Your task to perform on an android device: install app "Truecaller" Image 0: 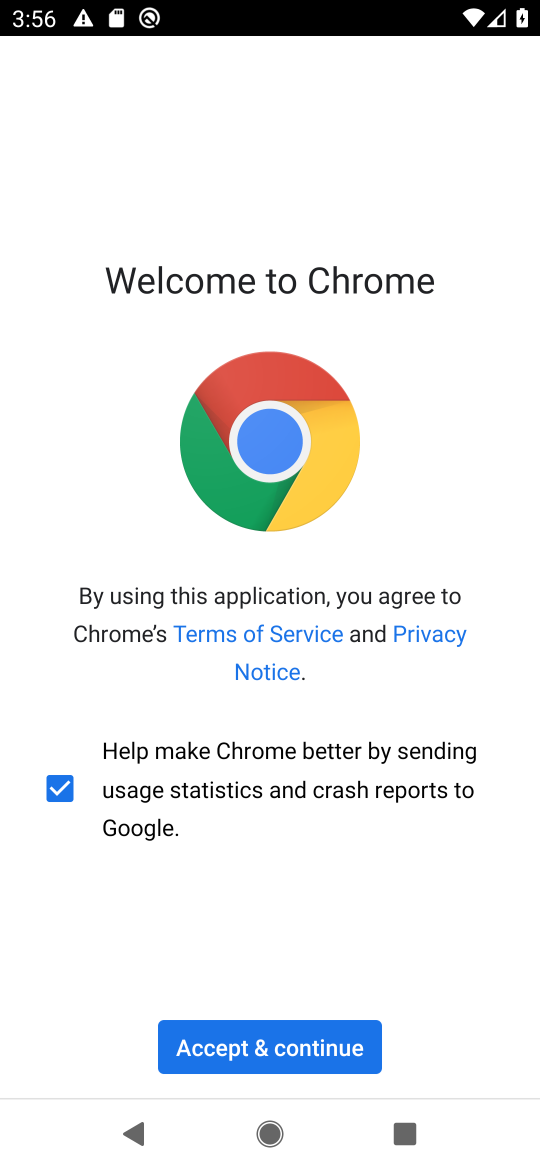
Step 0: press home button
Your task to perform on an android device: install app "Truecaller" Image 1: 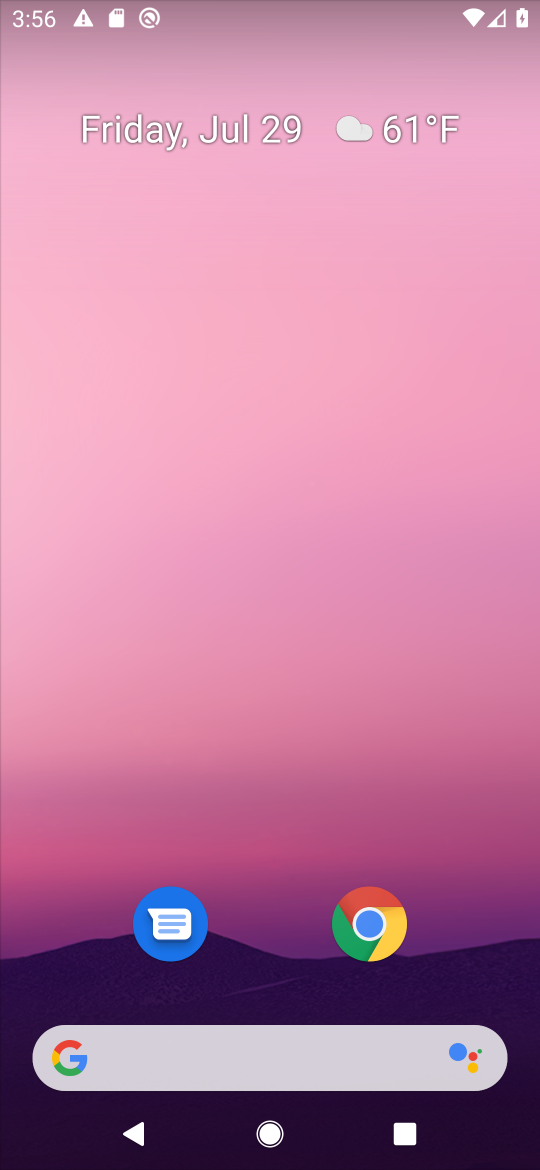
Step 1: drag from (306, 810) to (402, 56)
Your task to perform on an android device: install app "Truecaller" Image 2: 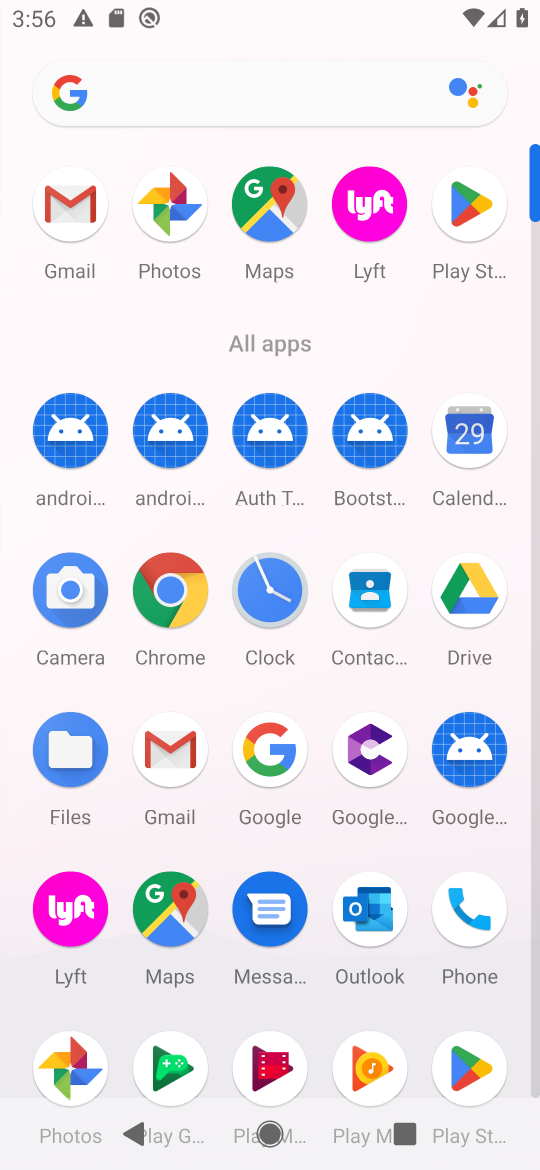
Step 2: click (463, 214)
Your task to perform on an android device: install app "Truecaller" Image 3: 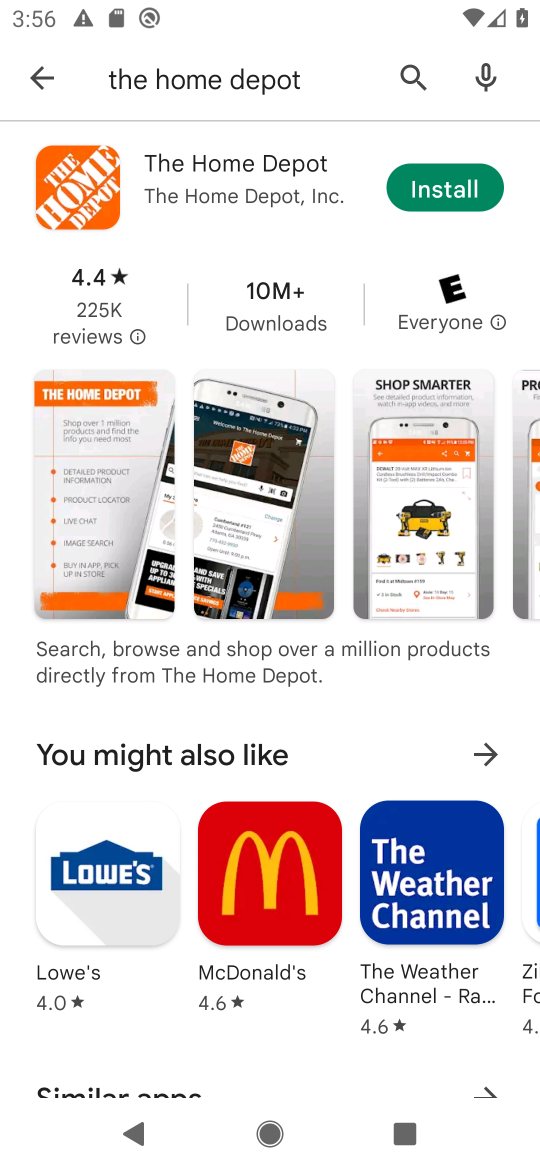
Step 3: click (409, 76)
Your task to perform on an android device: install app "Truecaller" Image 4: 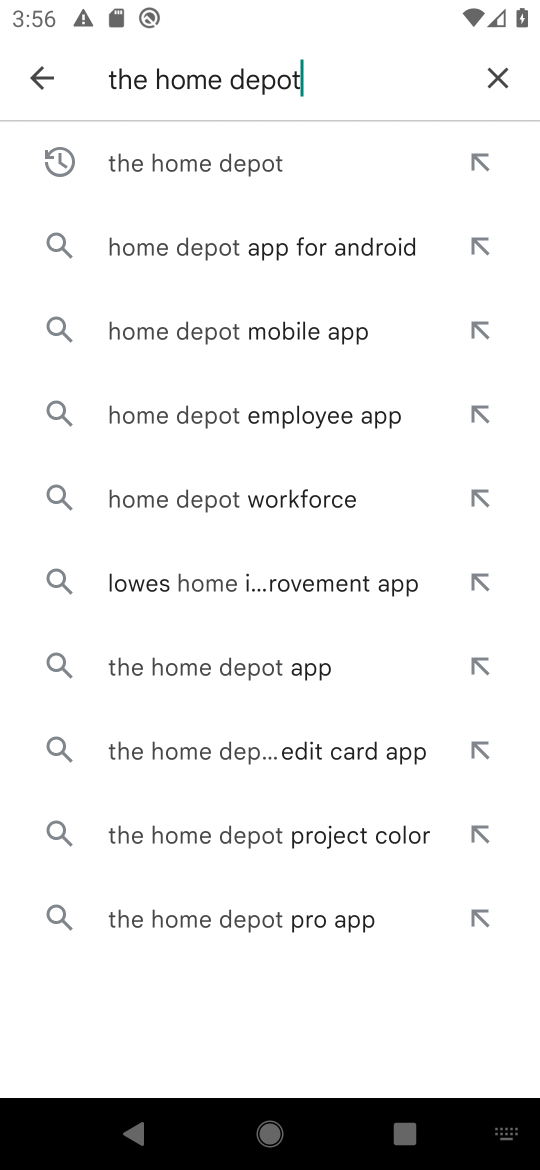
Step 4: click (502, 79)
Your task to perform on an android device: install app "Truecaller" Image 5: 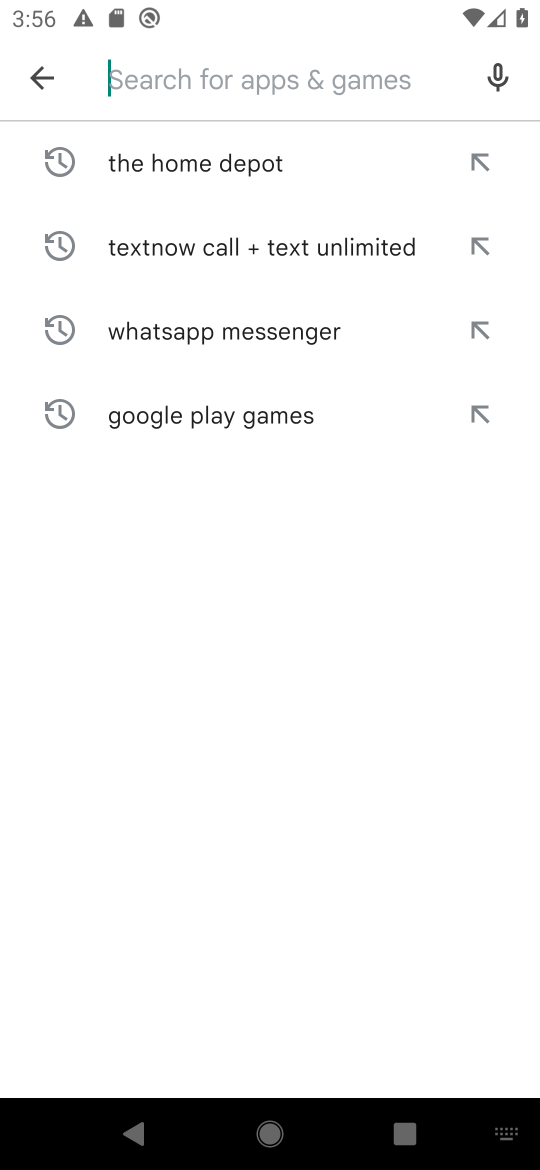
Step 5: type "Truecaller"
Your task to perform on an android device: install app "Truecaller" Image 6: 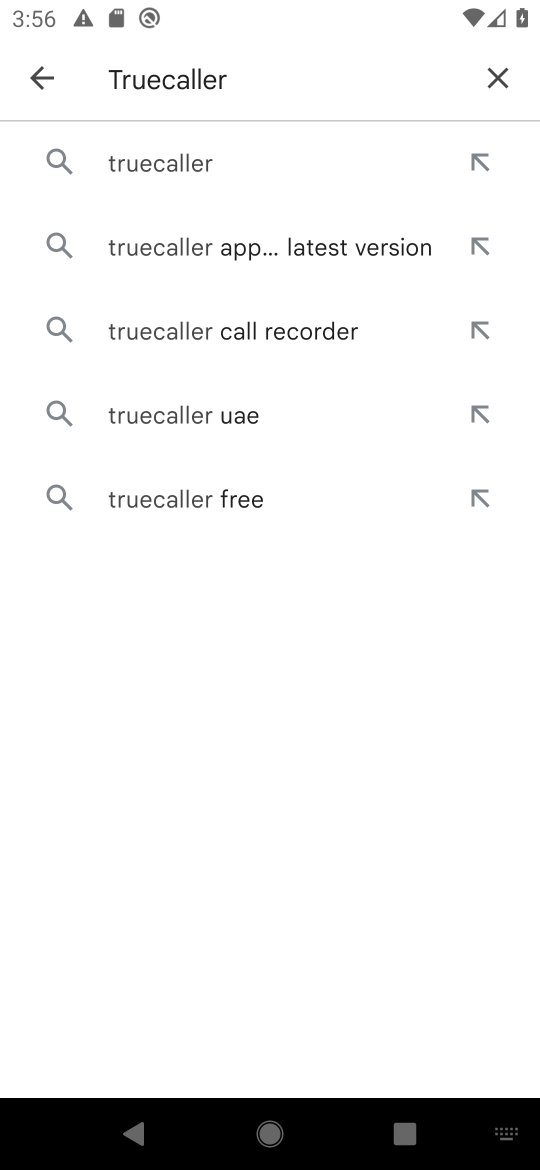
Step 6: click (120, 162)
Your task to perform on an android device: install app "Truecaller" Image 7: 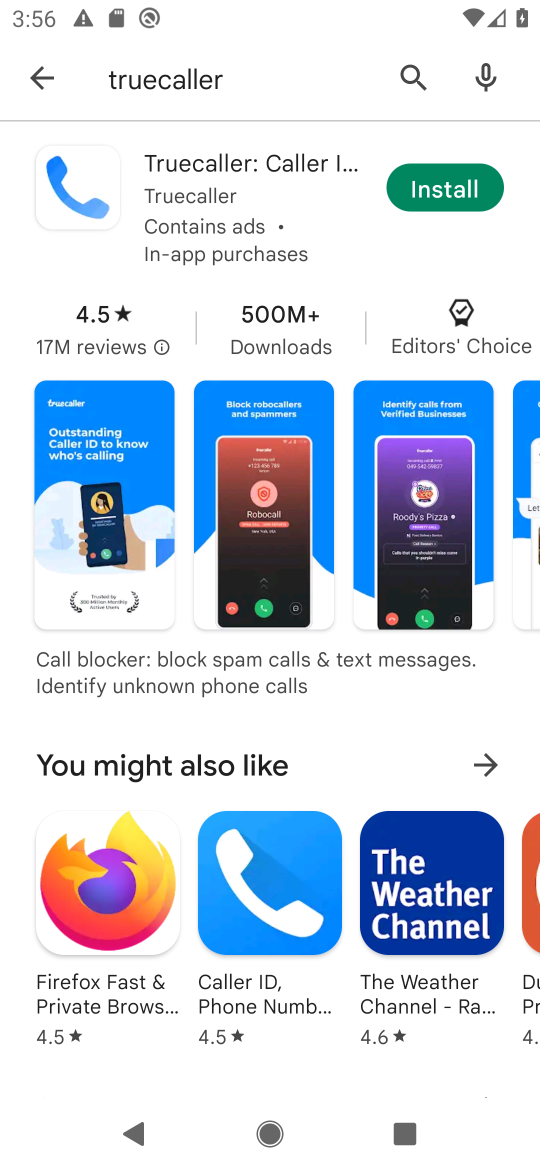
Step 7: click (418, 203)
Your task to perform on an android device: install app "Truecaller" Image 8: 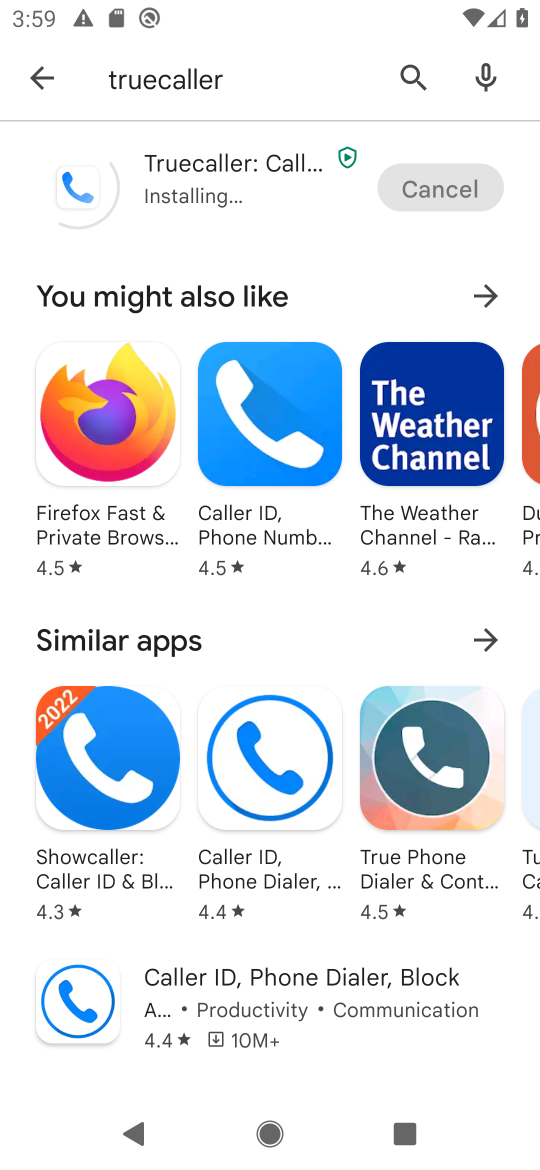
Step 8: click (465, 188)
Your task to perform on an android device: install app "Truecaller" Image 9: 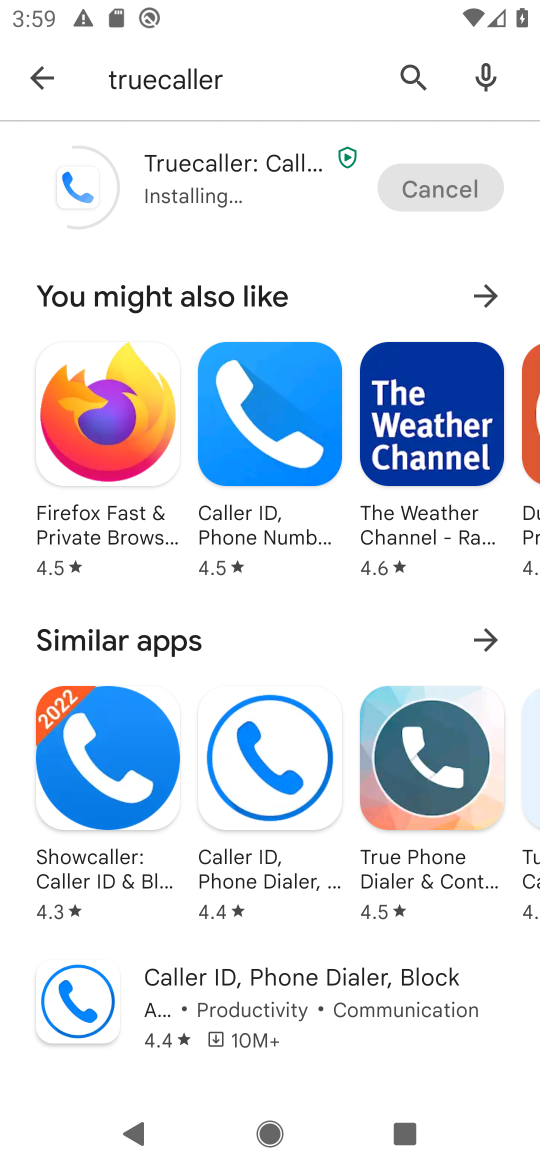
Step 9: click (455, 192)
Your task to perform on an android device: install app "Truecaller" Image 10: 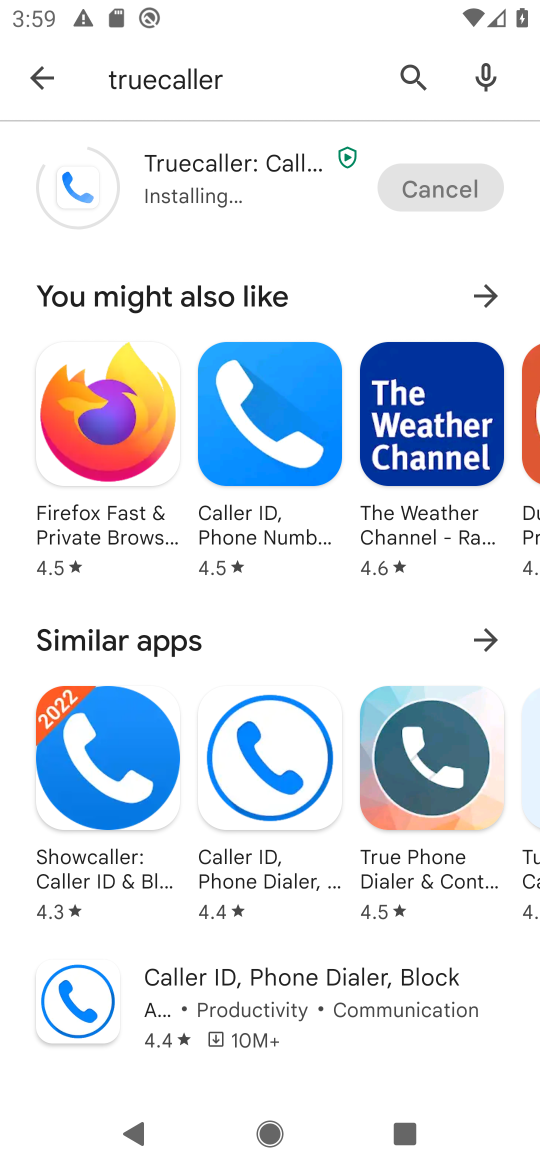
Step 10: task complete